Your task to perform on an android device: manage bookmarks in the chrome app Image 0: 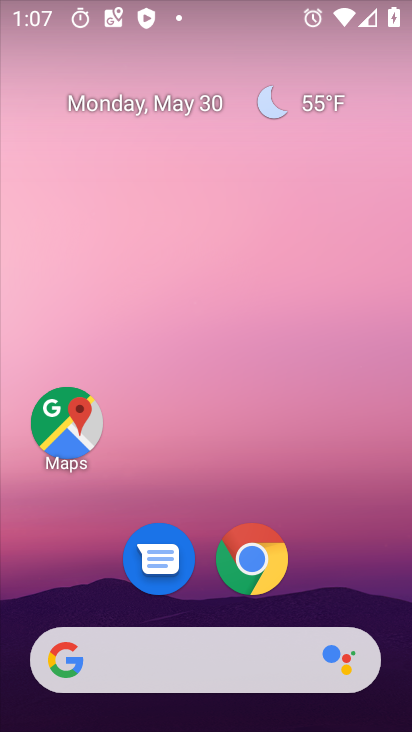
Step 0: click (260, 553)
Your task to perform on an android device: manage bookmarks in the chrome app Image 1: 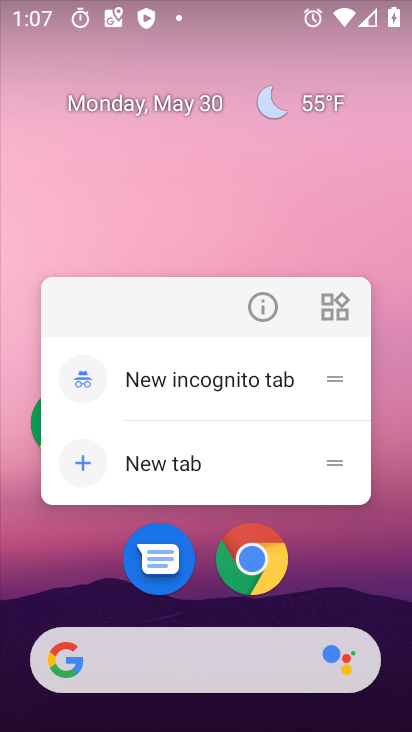
Step 1: click (259, 553)
Your task to perform on an android device: manage bookmarks in the chrome app Image 2: 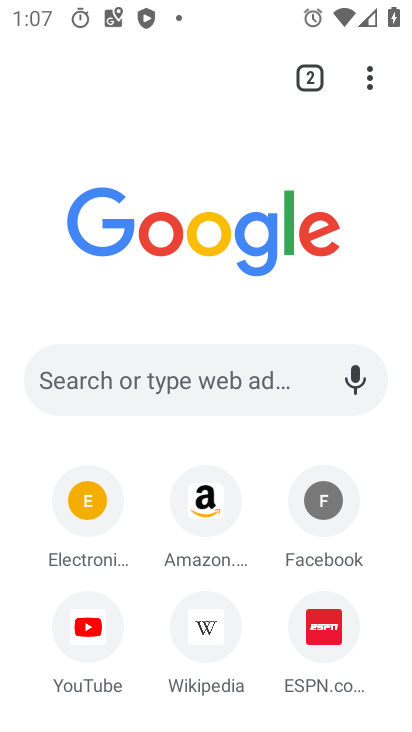
Step 2: drag from (373, 75) to (121, 291)
Your task to perform on an android device: manage bookmarks in the chrome app Image 3: 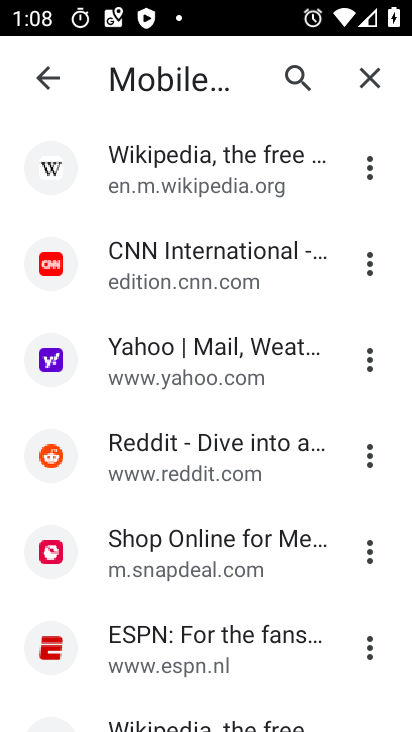
Step 3: click (367, 166)
Your task to perform on an android device: manage bookmarks in the chrome app Image 4: 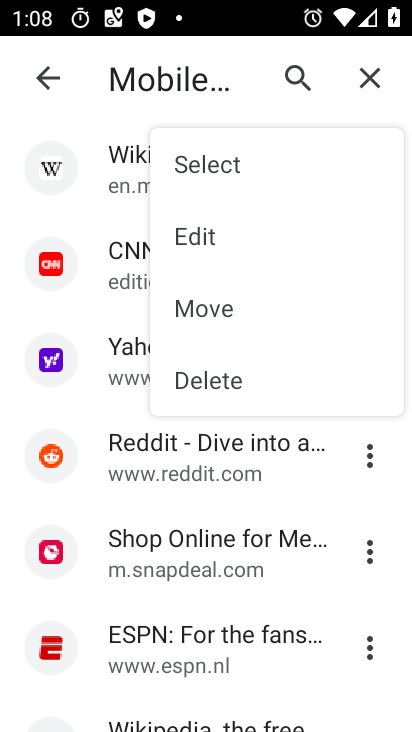
Step 4: click (212, 377)
Your task to perform on an android device: manage bookmarks in the chrome app Image 5: 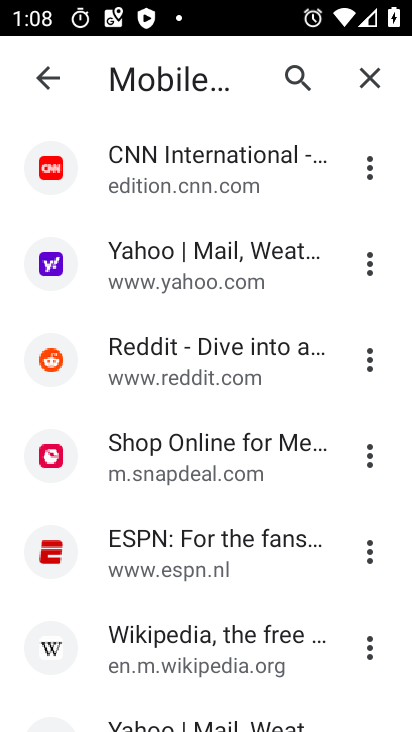
Step 5: task complete